Your task to perform on an android device: turn on the 12-hour format for clock Image 0: 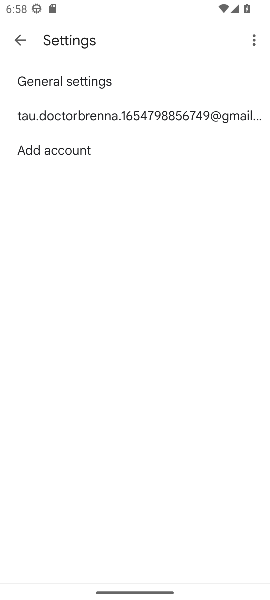
Step 0: press home button
Your task to perform on an android device: turn on the 12-hour format for clock Image 1: 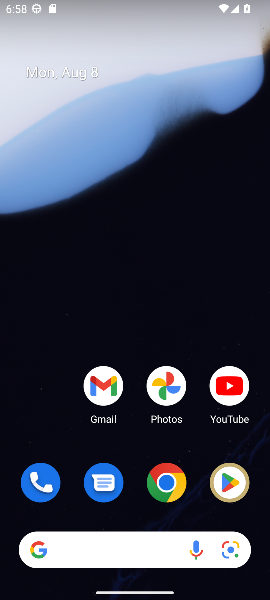
Step 1: drag from (162, 491) to (141, 20)
Your task to perform on an android device: turn on the 12-hour format for clock Image 2: 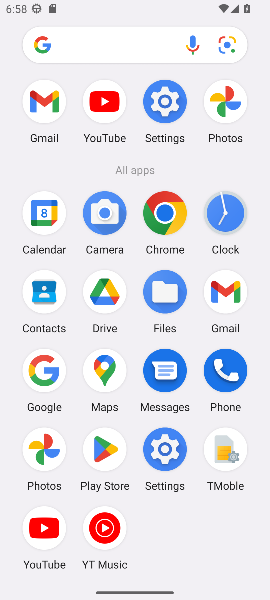
Step 2: click (233, 208)
Your task to perform on an android device: turn on the 12-hour format for clock Image 3: 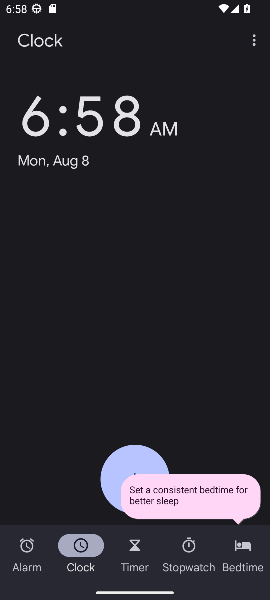
Step 3: click (262, 50)
Your task to perform on an android device: turn on the 12-hour format for clock Image 4: 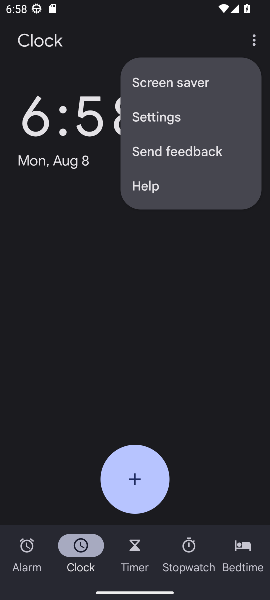
Step 4: click (124, 124)
Your task to perform on an android device: turn on the 12-hour format for clock Image 5: 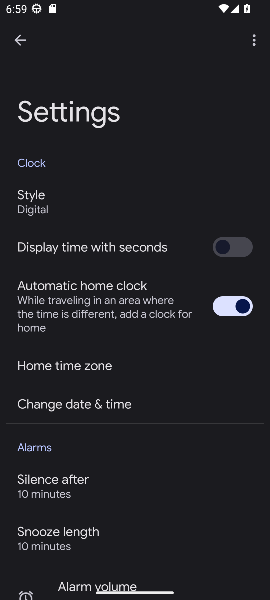
Step 5: drag from (66, 366) to (26, 189)
Your task to perform on an android device: turn on the 12-hour format for clock Image 6: 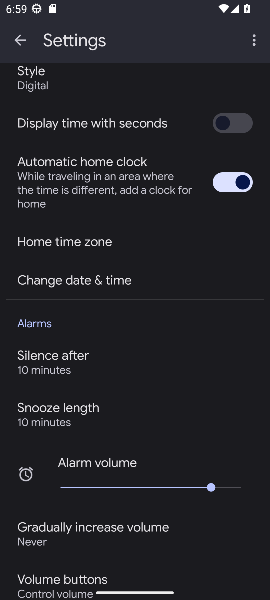
Step 6: click (65, 286)
Your task to perform on an android device: turn on the 12-hour format for clock Image 7: 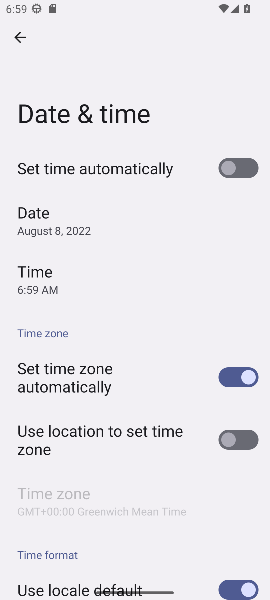
Step 7: task complete